Your task to perform on an android device: toggle notification dots Image 0: 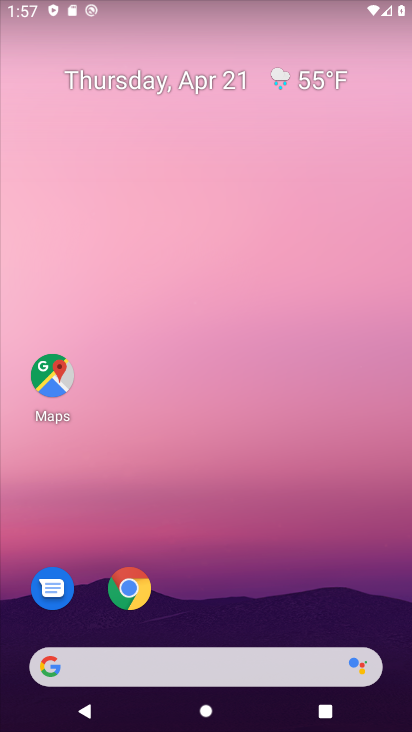
Step 0: drag from (238, 615) to (226, 3)
Your task to perform on an android device: toggle notification dots Image 1: 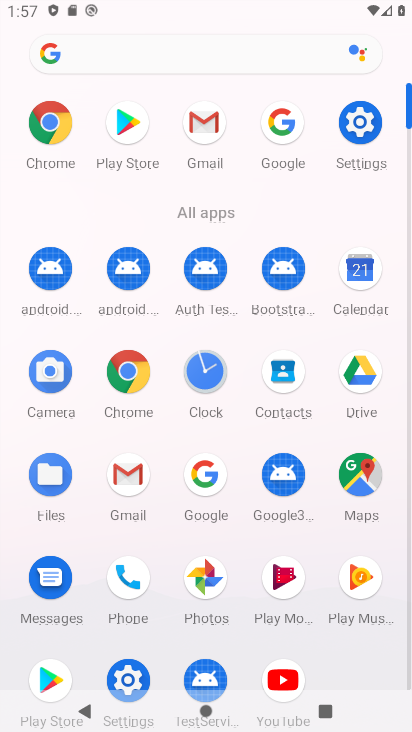
Step 1: click (342, 124)
Your task to perform on an android device: toggle notification dots Image 2: 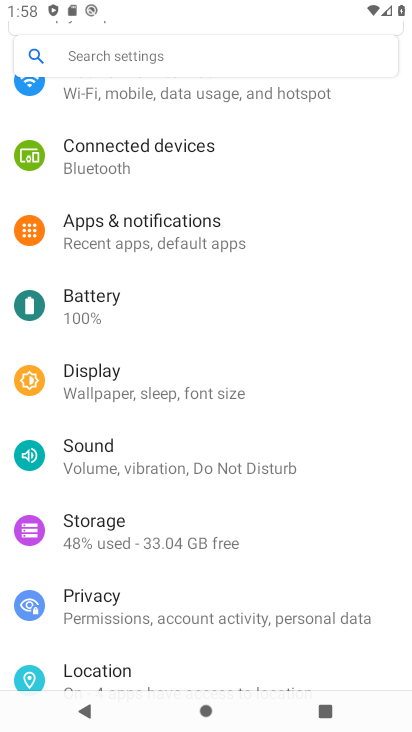
Step 2: click (90, 238)
Your task to perform on an android device: toggle notification dots Image 3: 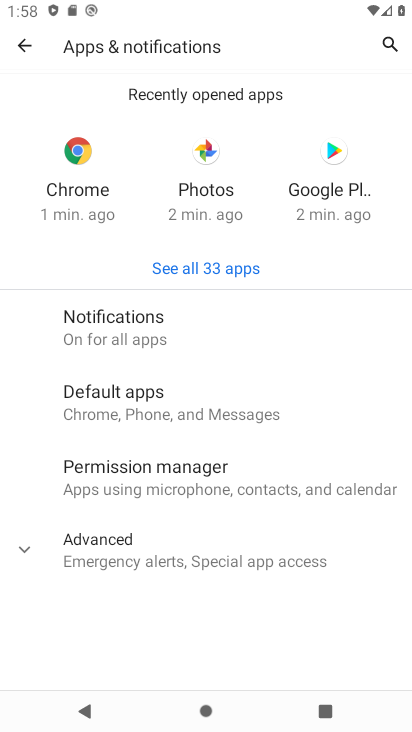
Step 3: click (138, 334)
Your task to perform on an android device: toggle notification dots Image 4: 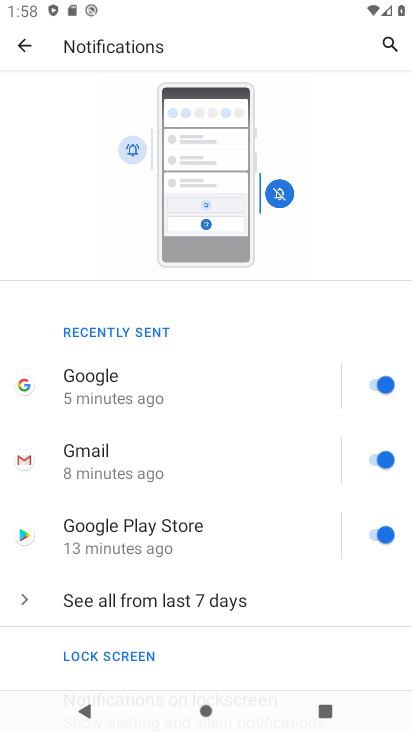
Step 4: drag from (210, 626) to (216, 489)
Your task to perform on an android device: toggle notification dots Image 5: 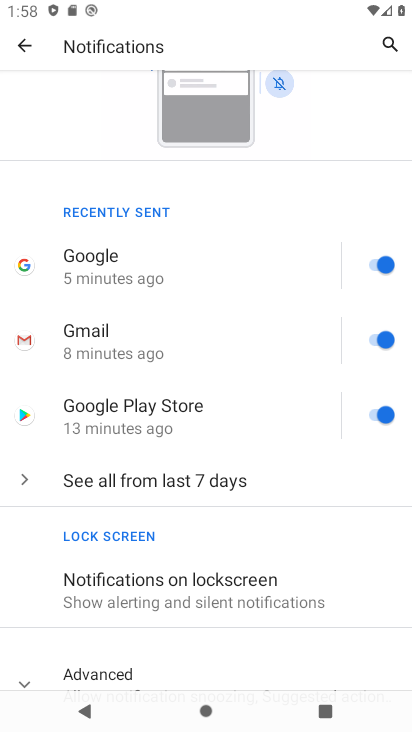
Step 5: drag from (227, 613) to (203, 461)
Your task to perform on an android device: toggle notification dots Image 6: 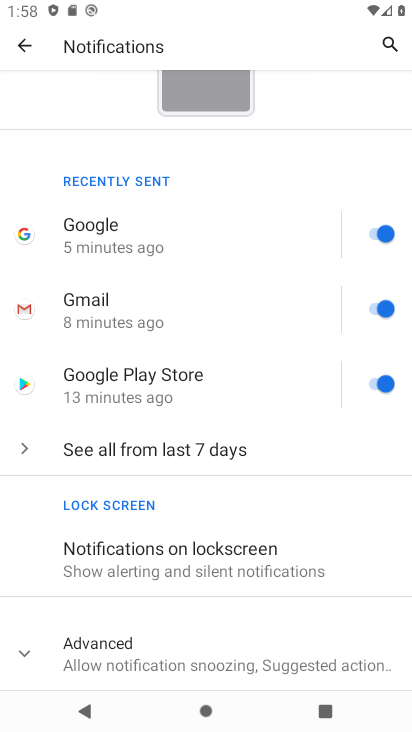
Step 6: drag from (160, 588) to (141, 454)
Your task to perform on an android device: toggle notification dots Image 7: 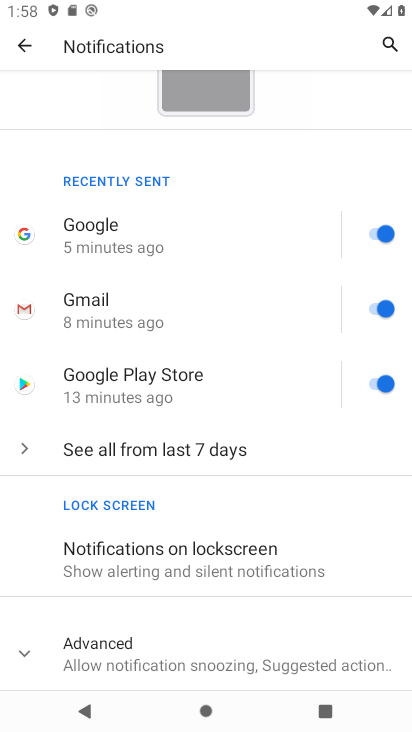
Step 7: click (134, 636)
Your task to perform on an android device: toggle notification dots Image 8: 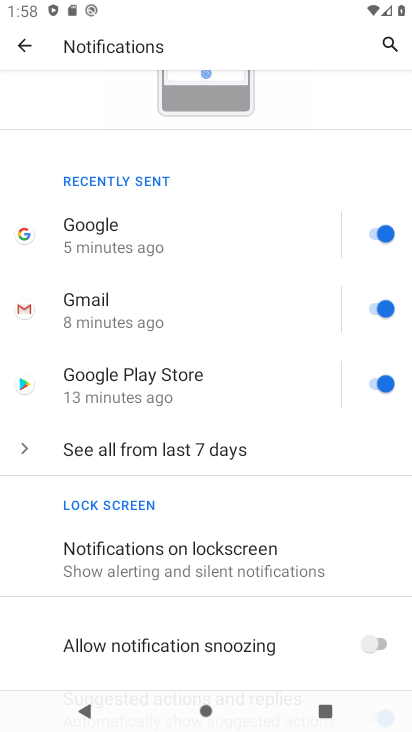
Step 8: drag from (133, 636) to (129, 505)
Your task to perform on an android device: toggle notification dots Image 9: 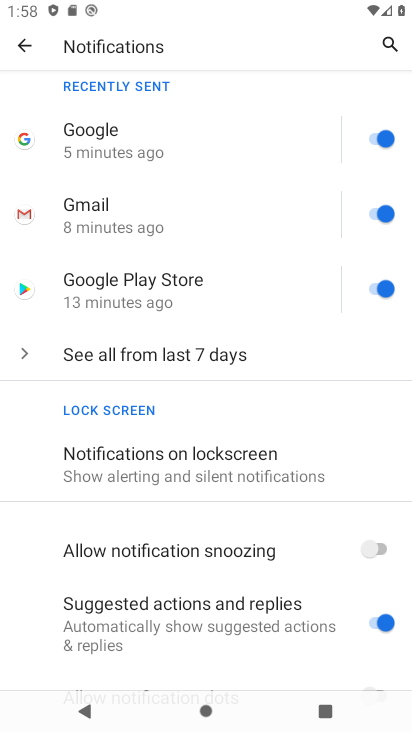
Step 9: drag from (161, 553) to (200, 395)
Your task to perform on an android device: toggle notification dots Image 10: 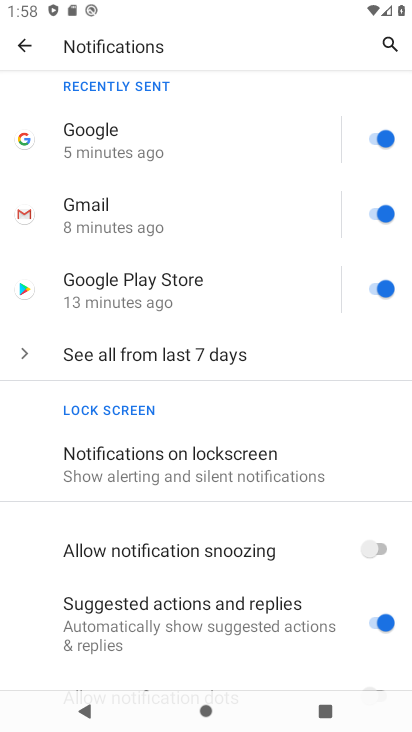
Step 10: drag from (229, 584) to (219, 415)
Your task to perform on an android device: toggle notification dots Image 11: 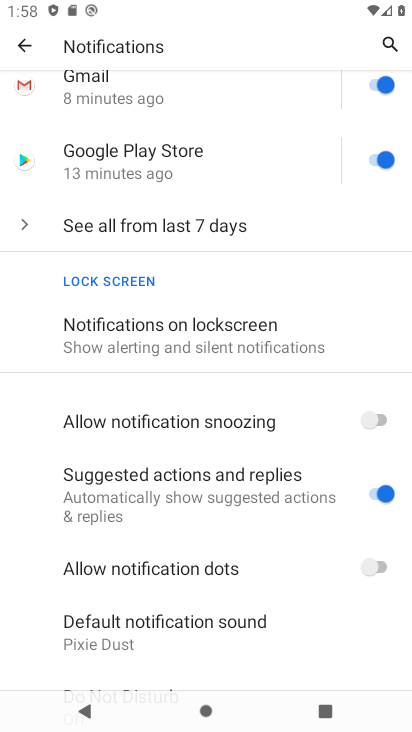
Step 11: click (362, 558)
Your task to perform on an android device: toggle notification dots Image 12: 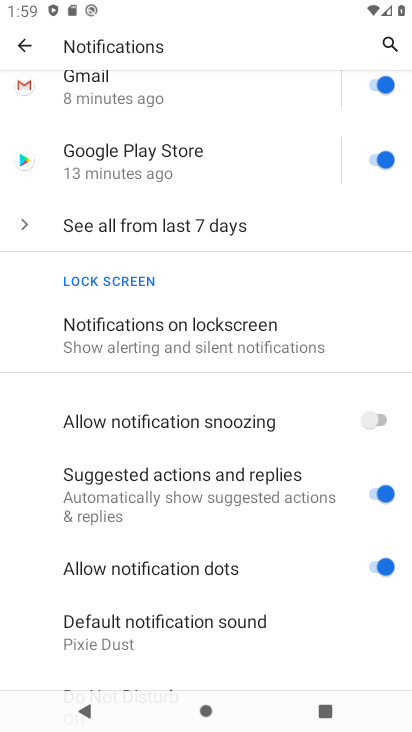
Step 12: task complete